Your task to perform on an android device: Open calendar and show me the fourth week of next month Image 0: 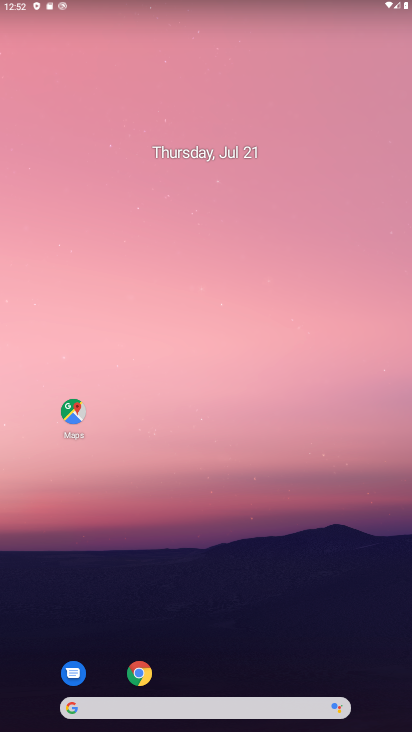
Step 0: drag from (203, 702) to (139, 54)
Your task to perform on an android device: Open calendar and show me the fourth week of next month Image 1: 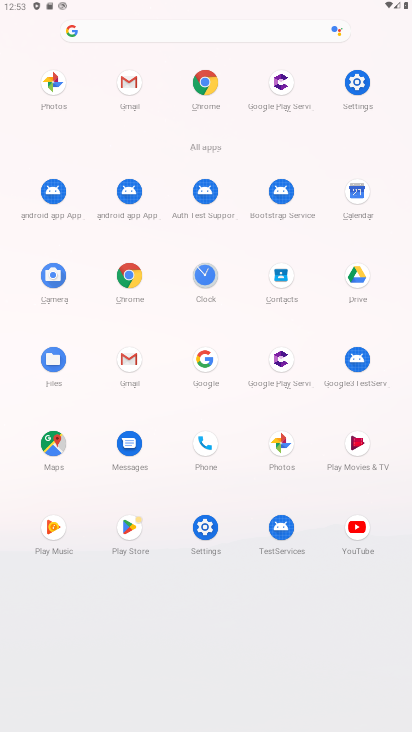
Step 1: click (357, 188)
Your task to perform on an android device: Open calendar and show me the fourth week of next month Image 2: 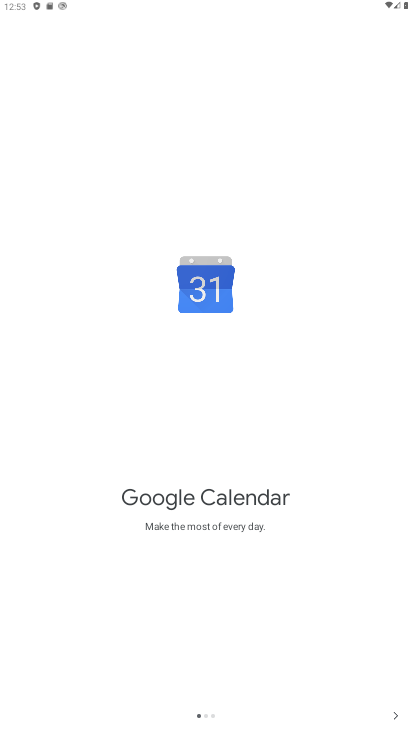
Step 2: click (392, 716)
Your task to perform on an android device: Open calendar and show me the fourth week of next month Image 3: 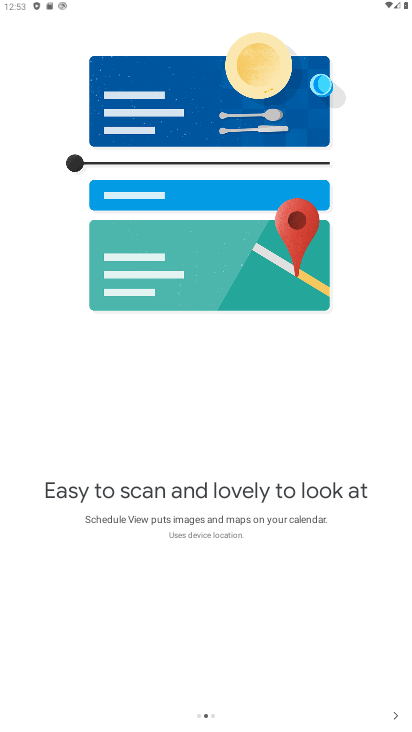
Step 3: click (392, 716)
Your task to perform on an android device: Open calendar and show me the fourth week of next month Image 4: 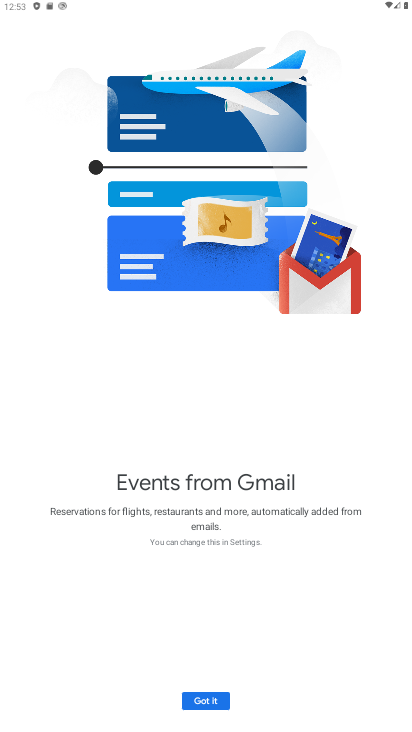
Step 4: click (204, 702)
Your task to perform on an android device: Open calendar and show me the fourth week of next month Image 5: 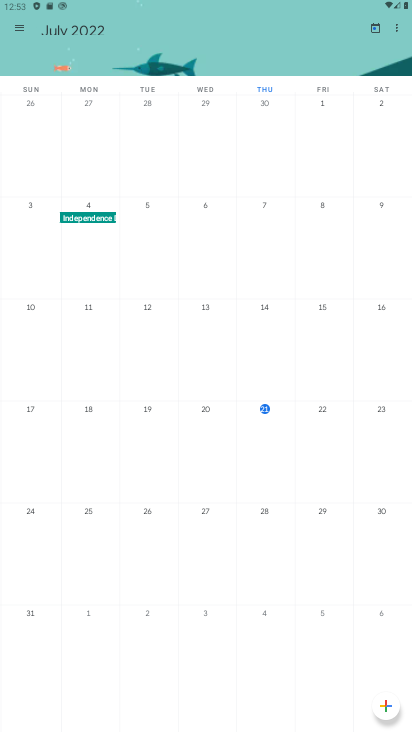
Step 5: task complete